Your task to perform on an android device: Is it going to rain today? Image 0: 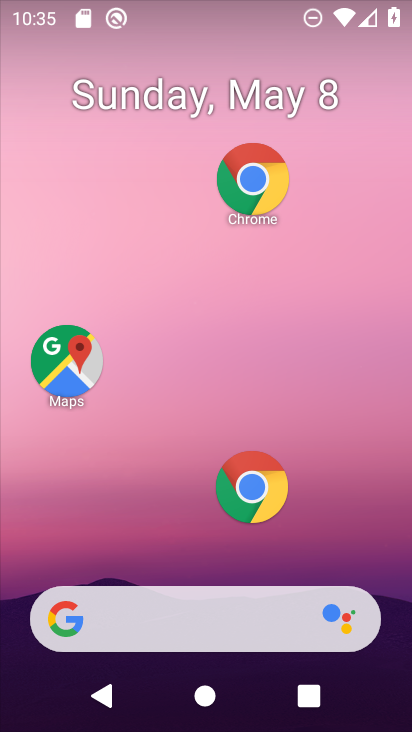
Step 0: click (162, 602)
Your task to perform on an android device: Is it going to rain today? Image 1: 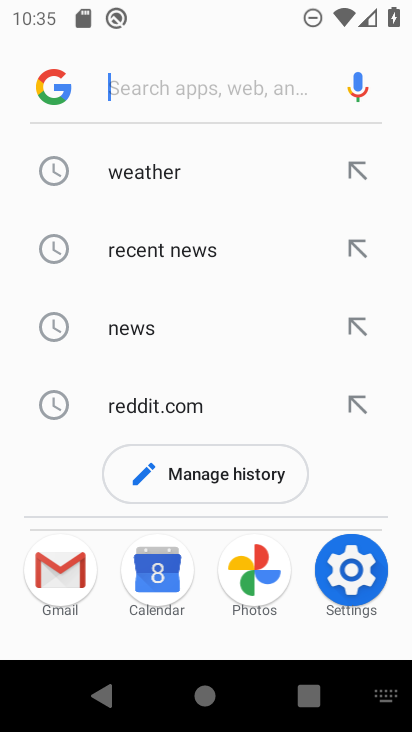
Step 1: click (117, 170)
Your task to perform on an android device: Is it going to rain today? Image 2: 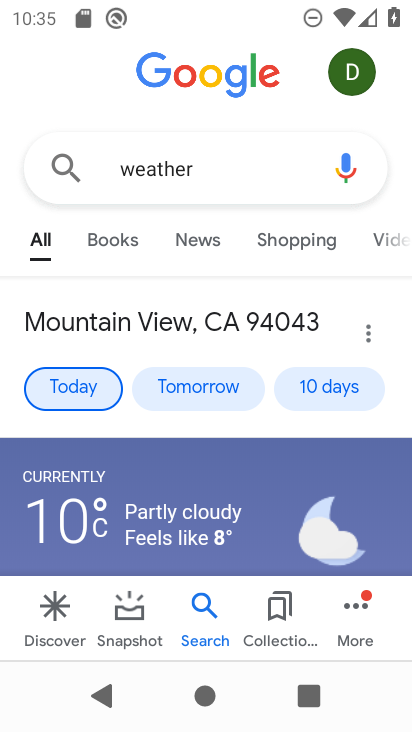
Step 2: click (71, 382)
Your task to perform on an android device: Is it going to rain today? Image 3: 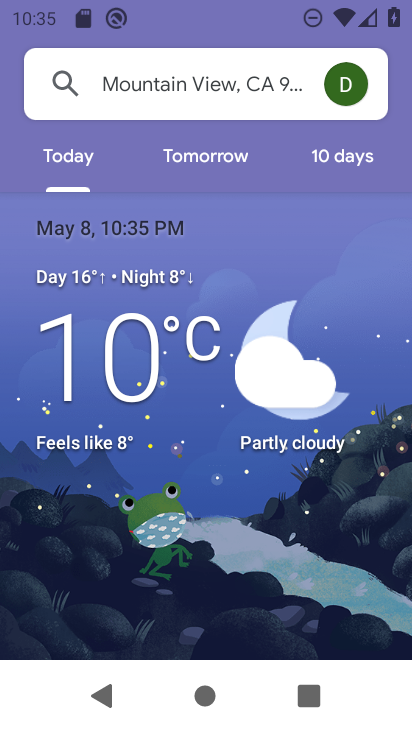
Step 3: task complete